Your task to perform on an android device: Go to ESPN.com Image 0: 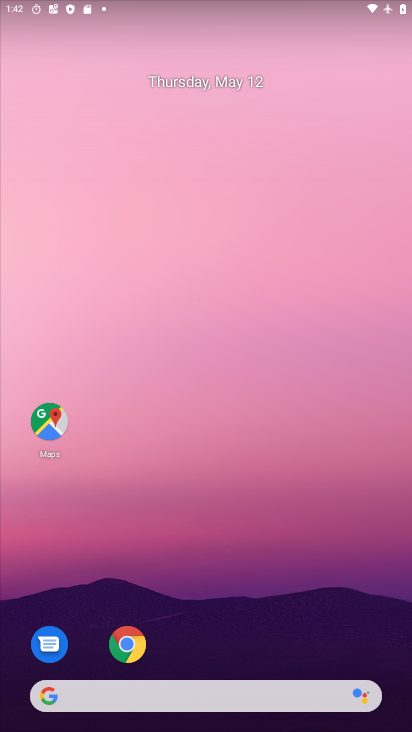
Step 0: click (135, 639)
Your task to perform on an android device: Go to ESPN.com Image 1: 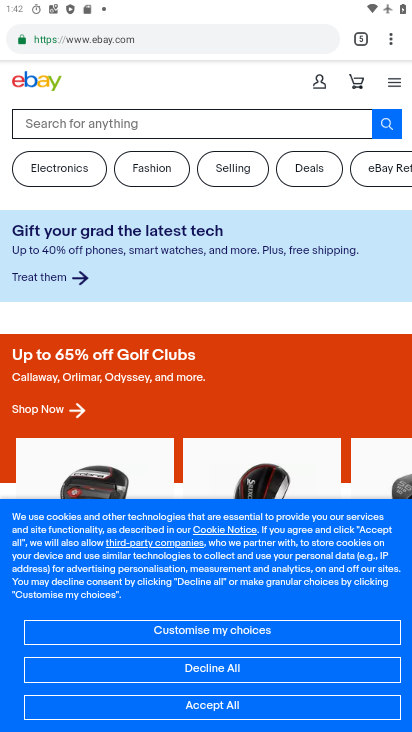
Step 1: click (357, 41)
Your task to perform on an android device: Go to ESPN.com Image 2: 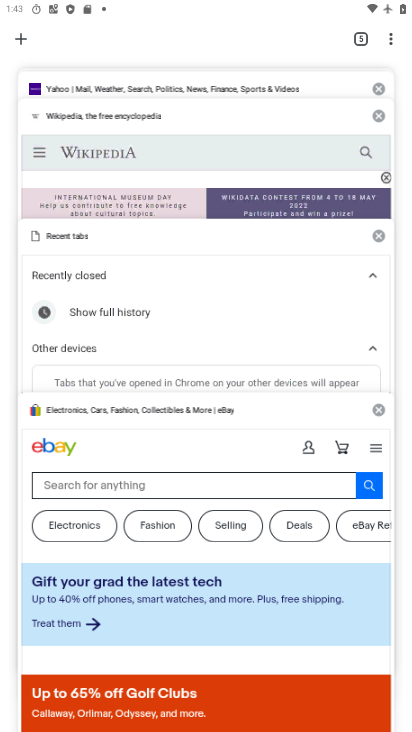
Step 2: click (21, 34)
Your task to perform on an android device: Go to ESPN.com Image 3: 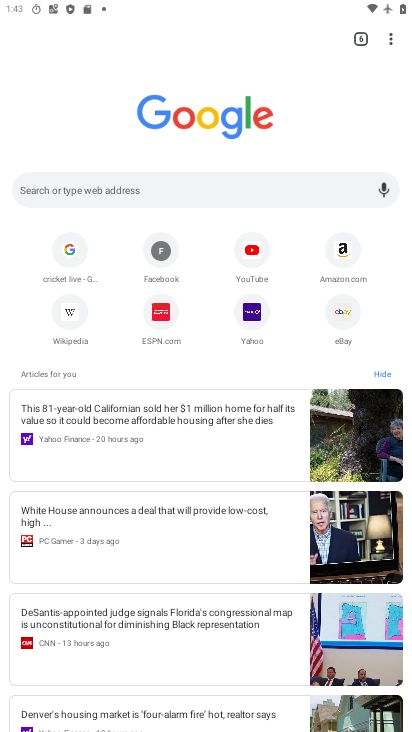
Step 3: click (158, 316)
Your task to perform on an android device: Go to ESPN.com Image 4: 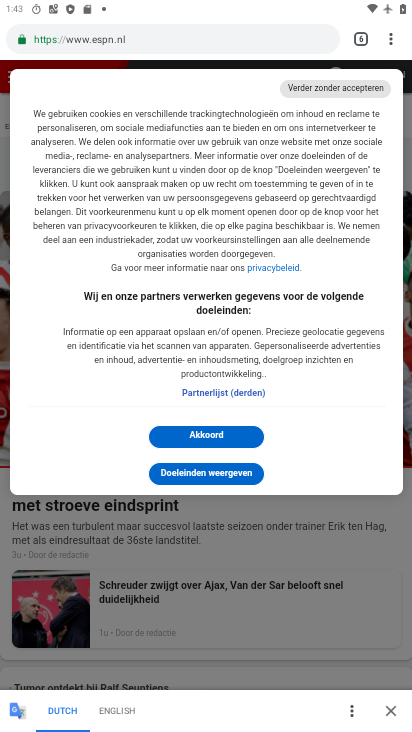
Step 4: task complete